Your task to perform on an android device: turn off notifications settings in the gmail app Image 0: 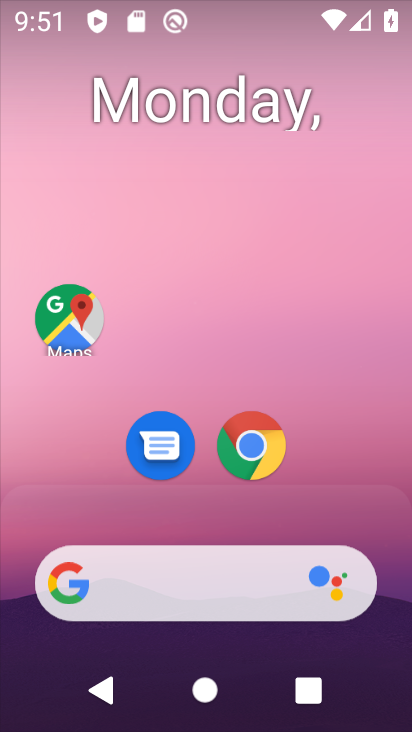
Step 0: drag from (309, 509) to (278, 120)
Your task to perform on an android device: turn off notifications settings in the gmail app Image 1: 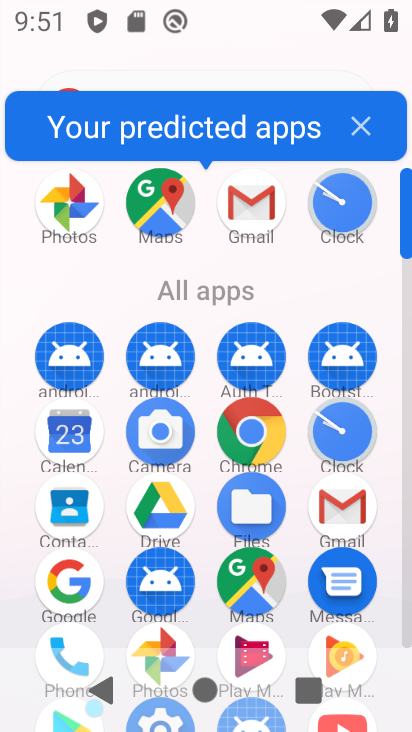
Step 1: click (245, 188)
Your task to perform on an android device: turn off notifications settings in the gmail app Image 2: 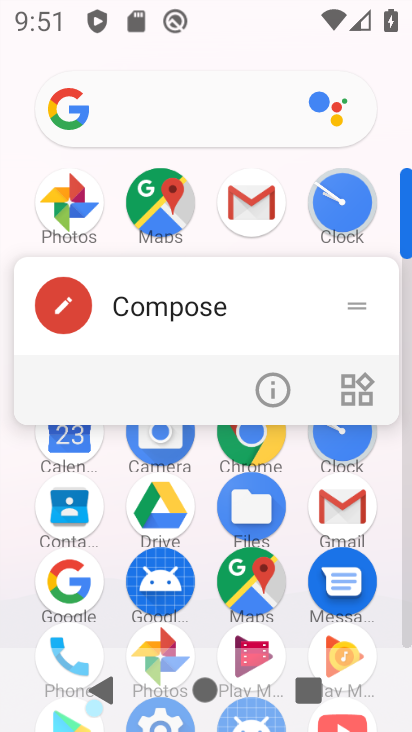
Step 2: click (244, 192)
Your task to perform on an android device: turn off notifications settings in the gmail app Image 3: 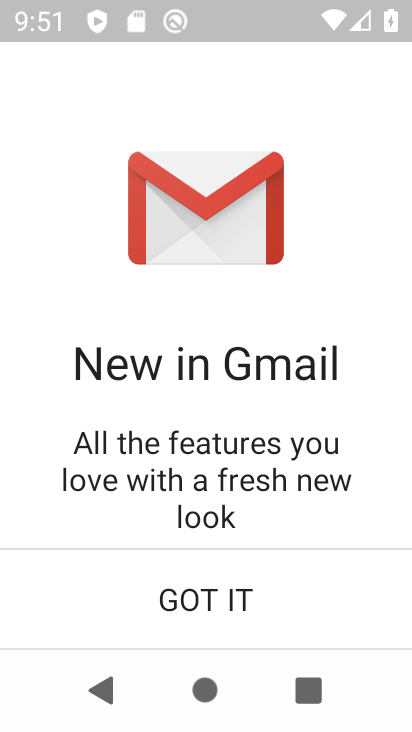
Step 3: click (303, 610)
Your task to perform on an android device: turn off notifications settings in the gmail app Image 4: 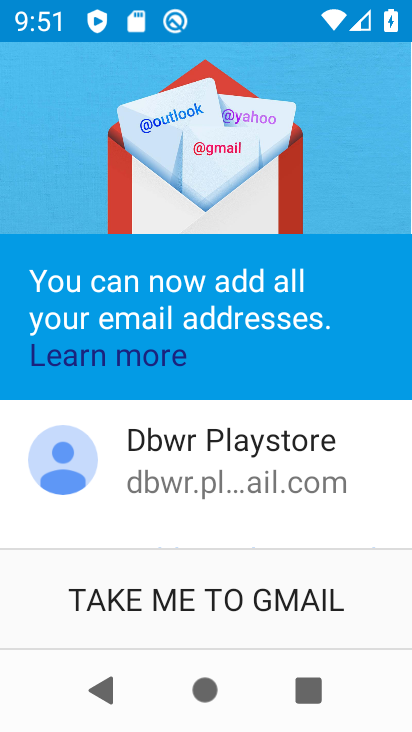
Step 4: click (163, 578)
Your task to perform on an android device: turn off notifications settings in the gmail app Image 5: 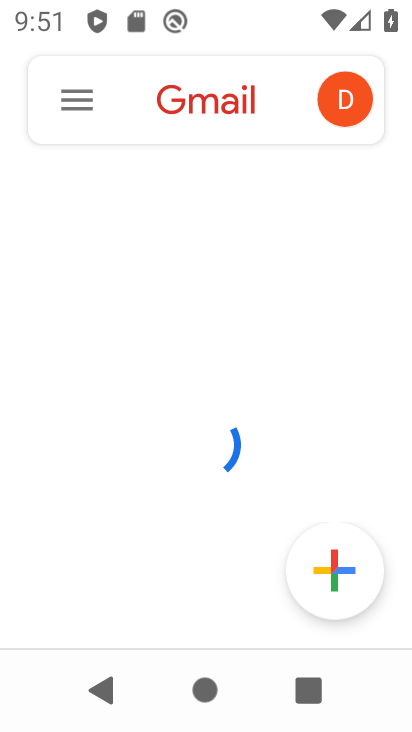
Step 5: click (80, 94)
Your task to perform on an android device: turn off notifications settings in the gmail app Image 6: 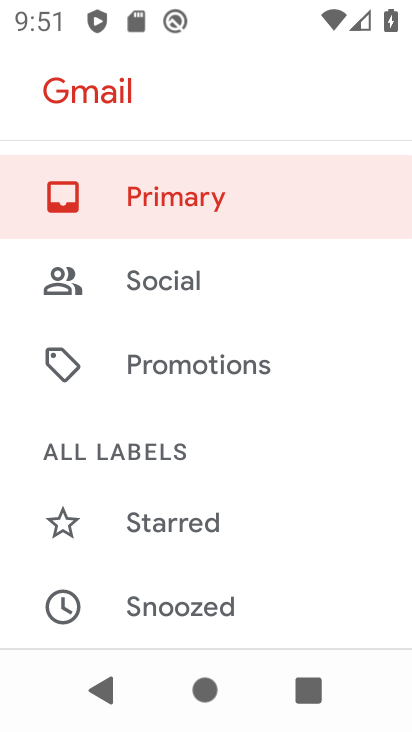
Step 6: drag from (183, 536) to (231, 98)
Your task to perform on an android device: turn off notifications settings in the gmail app Image 7: 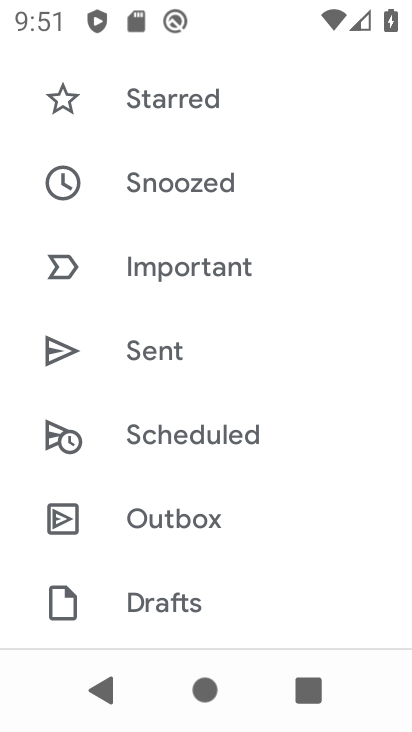
Step 7: drag from (164, 634) to (235, 189)
Your task to perform on an android device: turn off notifications settings in the gmail app Image 8: 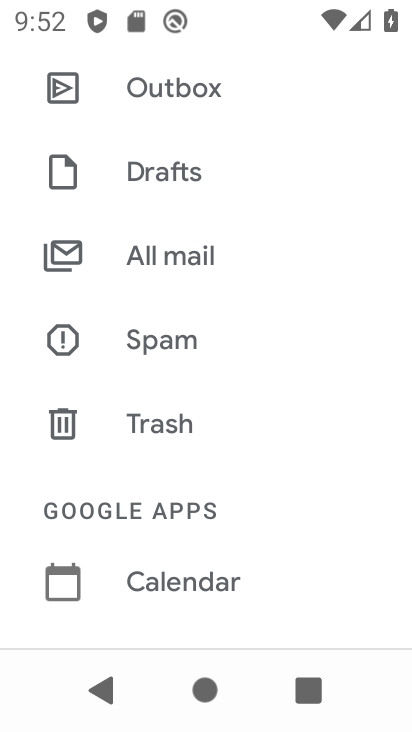
Step 8: drag from (231, 552) to (228, 183)
Your task to perform on an android device: turn off notifications settings in the gmail app Image 9: 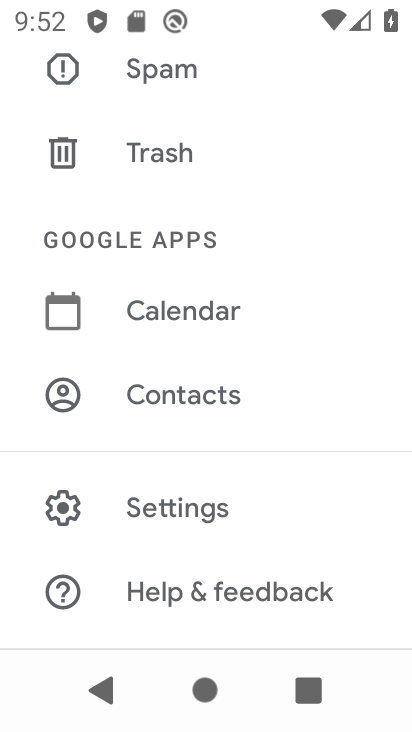
Step 9: click (179, 493)
Your task to perform on an android device: turn off notifications settings in the gmail app Image 10: 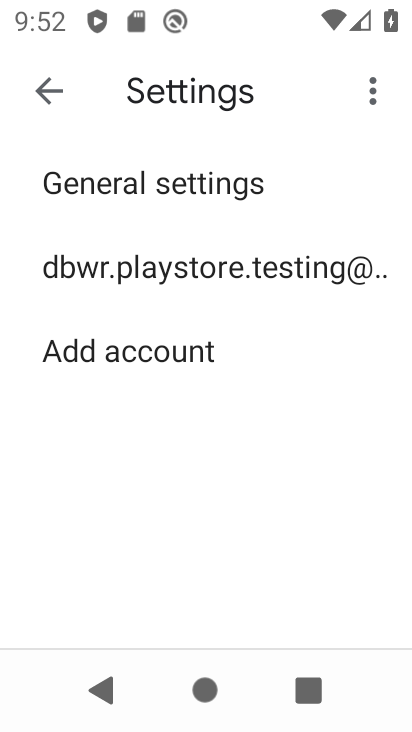
Step 10: click (223, 289)
Your task to perform on an android device: turn off notifications settings in the gmail app Image 11: 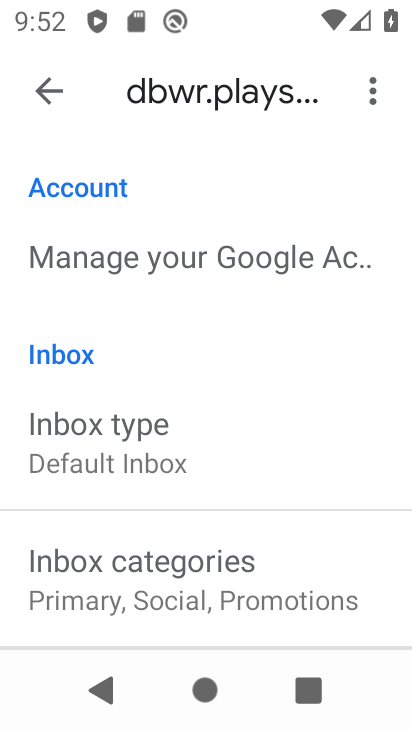
Step 11: drag from (217, 572) to (299, 232)
Your task to perform on an android device: turn off notifications settings in the gmail app Image 12: 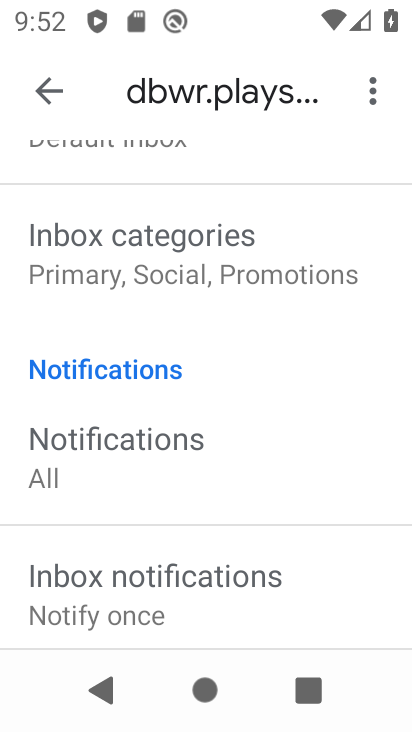
Step 12: drag from (251, 525) to (276, 221)
Your task to perform on an android device: turn off notifications settings in the gmail app Image 13: 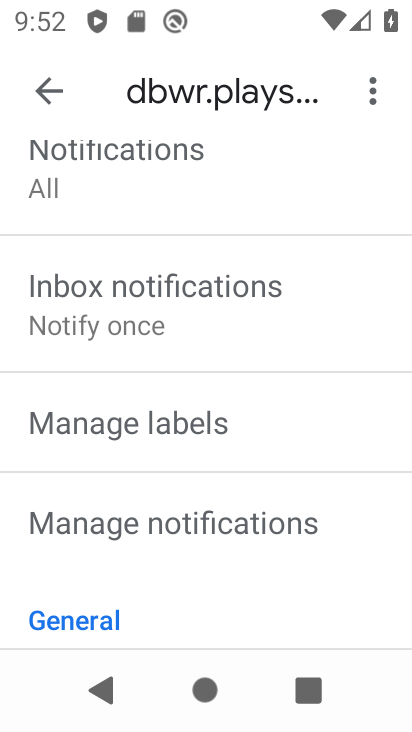
Step 13: click (169, 518)
Your task to perform on an android device: turn off notifications settings in the gmail app Image 14: 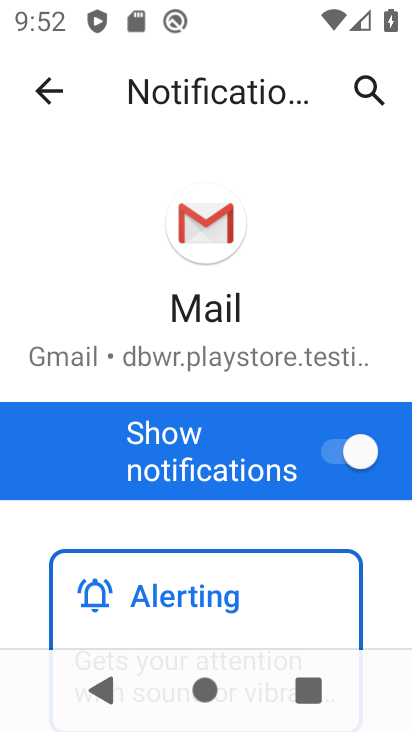
Step 14: click (345, 443)
Your task to perform on an android device: turn off notifications settings in the gmail app Image 15: 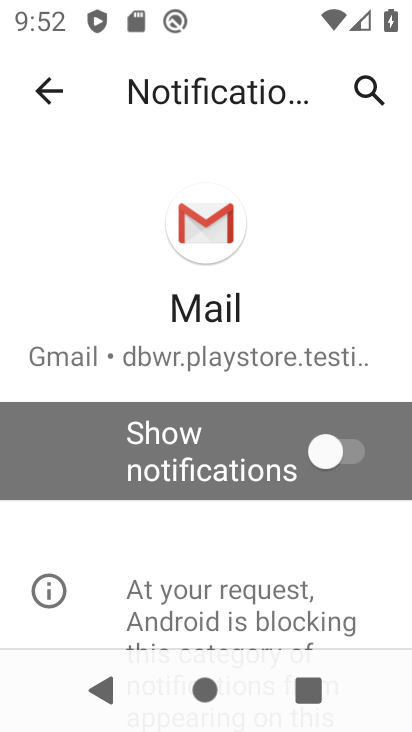
Step 15: task complete